Your task to perform on an android device: Go to calendar. Show me events next week Image 0: 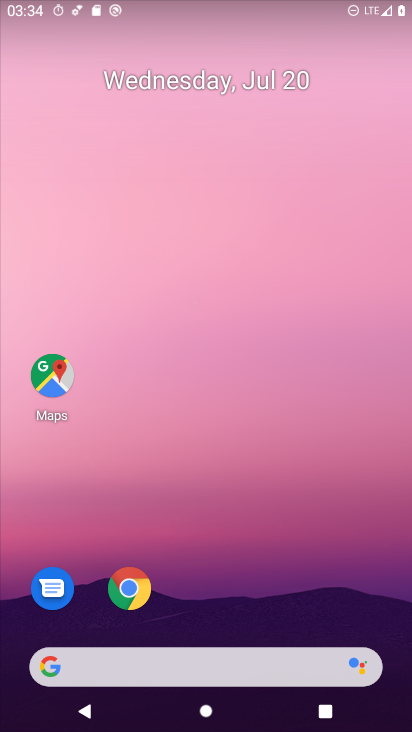
Step 0: drag from (240, 633) to (181, 8)
Your task to perform on an android device: Go to calendar. Show me events next week Image 1: 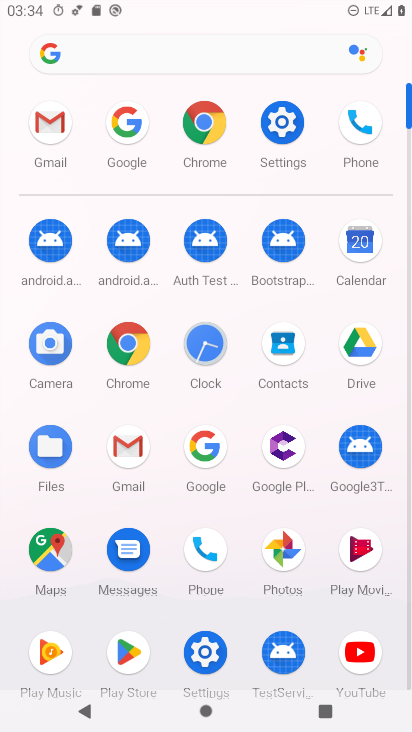
Step 1: click (358, 246)
Your task to perform on an android device: Go to calendar. Show me events next week Image 2: 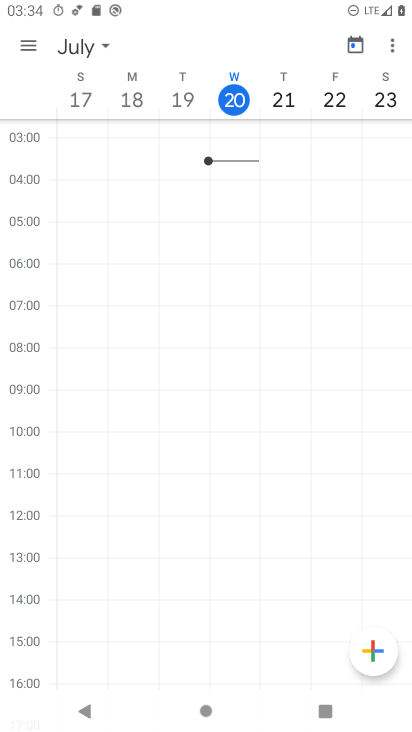
Step 2: task complete